Your task to perform on an android device: Go to Yahoo.com Image 0: 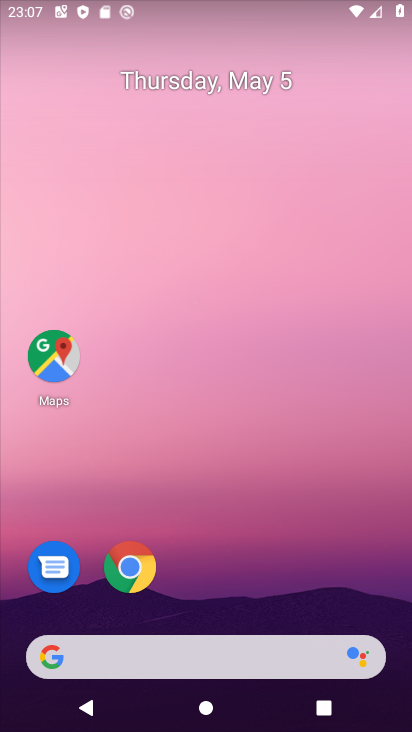
Step 0: click (121, 581)
Your task to perform on an android device: Go to Yahoo.com Image 1: 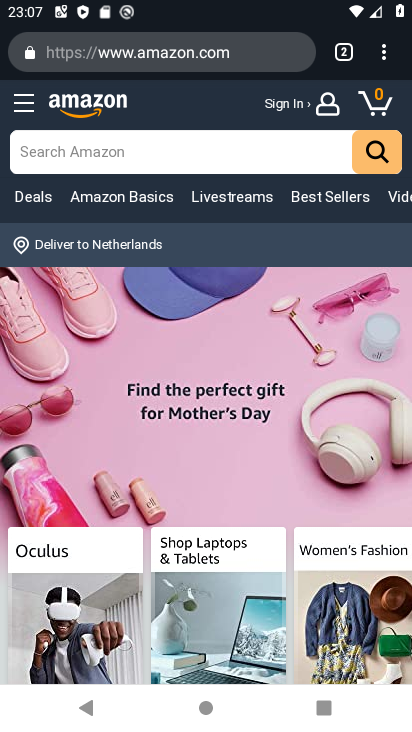
Step 1: click (360, 60)
Your task to perform on an android device: Go to Yahoo.com Image 2: 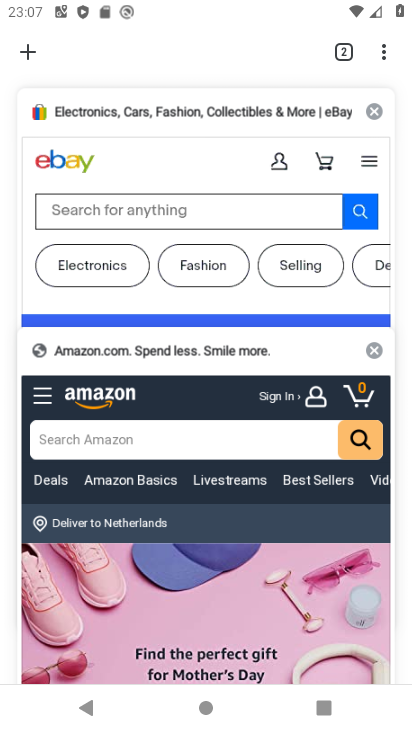
Step 2: click (21, 44)
Your task to perform on an android device: Go to Yahoo.com Image 3: 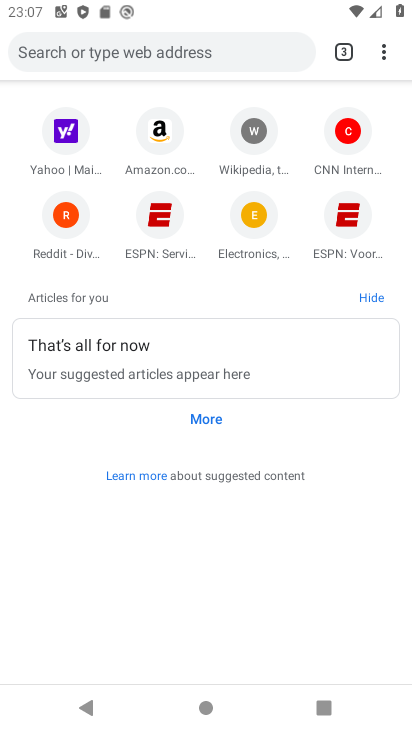
Step 3: click (81, 141)
Your task to perform on an android device: Go to Yahoo.com Image 4: 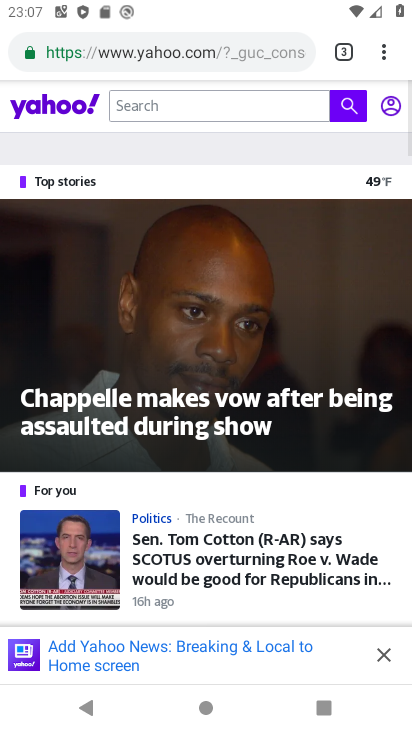
Step 4: task complete